Your task to perform on an android device: Open CNN.com Image 0: 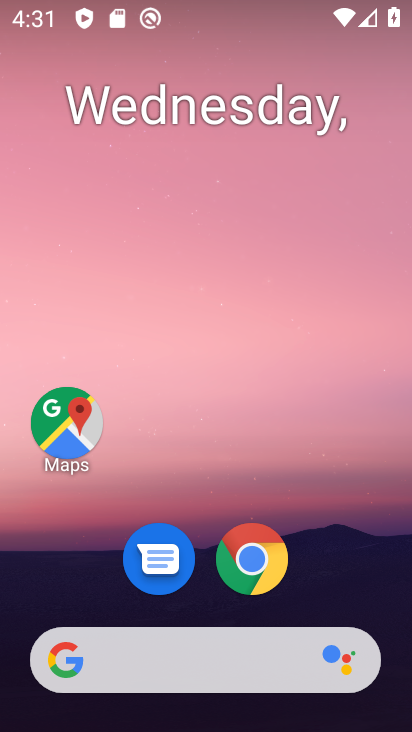
Step 0: click (261, 559)
Your task to perform on an android device: Open CNN.com Image 1: 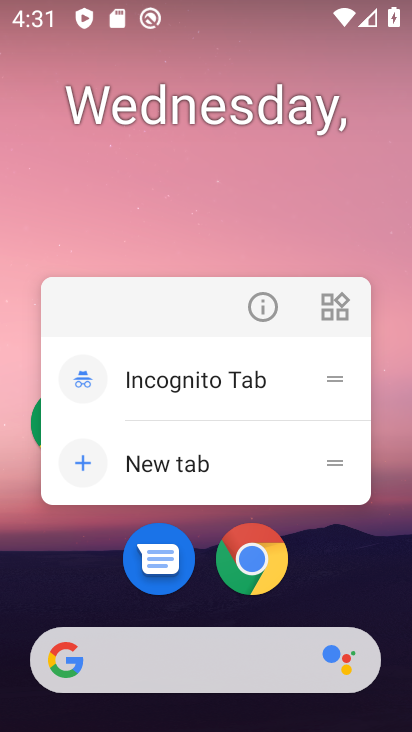
Step 1: click (261, 559)
Your task to perform on an android device: Open CNN.com Image 2: 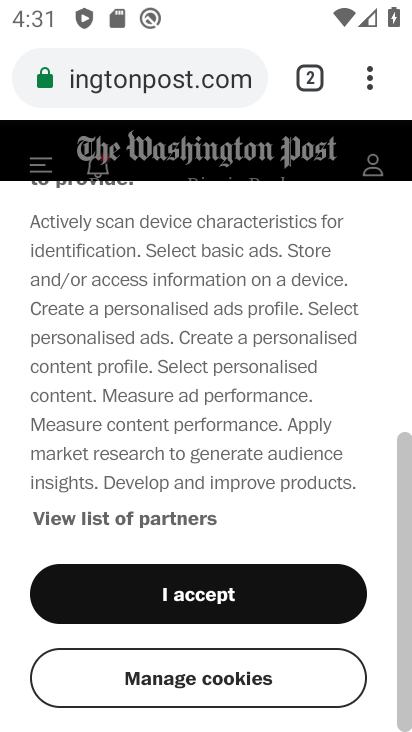
Step 2: click (199, 68)
Your task to perform on an android device: Open CNN.com Image 3: 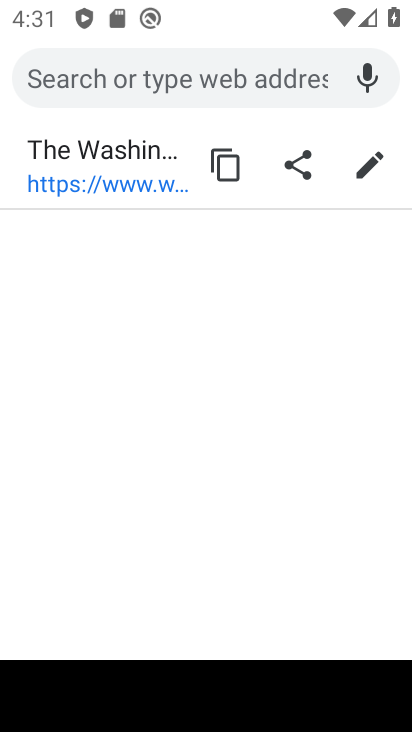
Step 3: type "cnn.com"
Your task to perform on an android device: Open CNN.com Image 4: 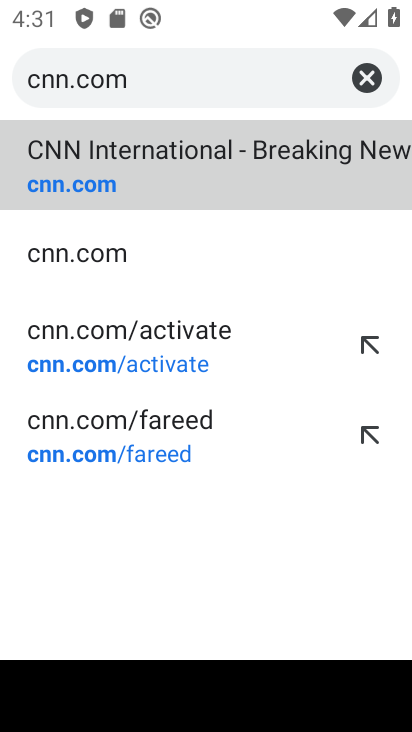
Step 4: click (315, 168)
Your task to perform on an android device: Open CNN.com Image 5: 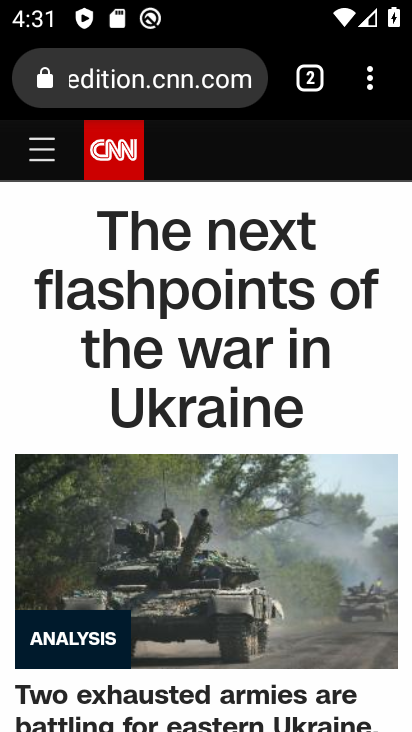
Step 5: task complete